Your task to perform on an android device: turn on notifications settings in the gmail app Image 0: 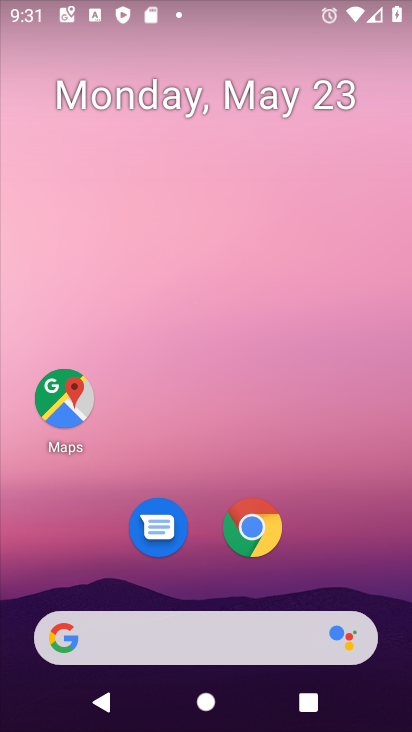
Step 0: drag from (314, 469) to (298, 72)
Your task to perform on an android device: turn on notifications settings in the gmail app Image 1: 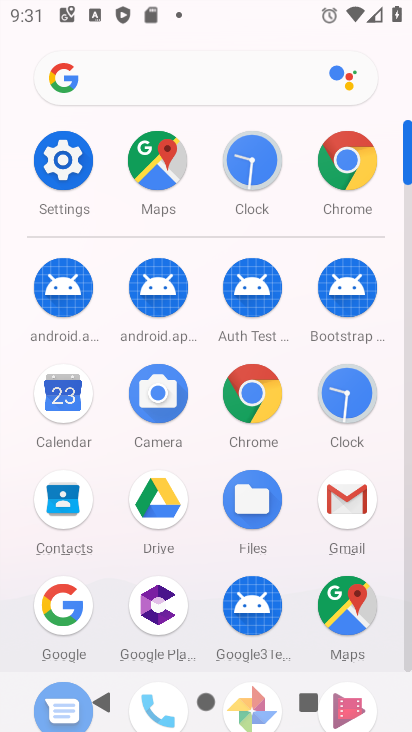
Step 1: drag from (8, 576) to (8, 172)
Your task to perform on an android device: turn on notifications settings in the gmail app Image 2: 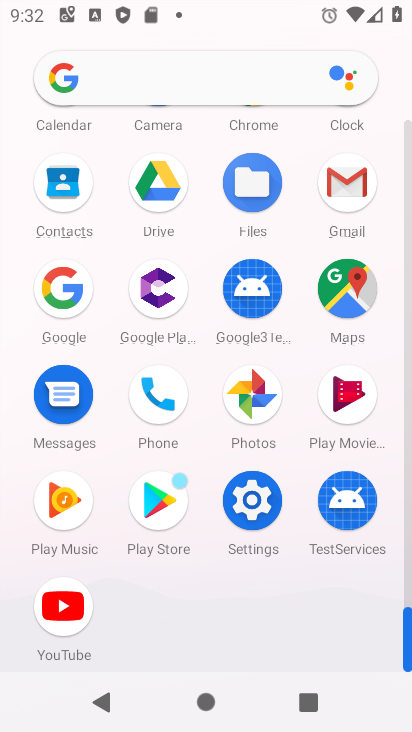
Step 2: click (342, 184)
Your task to perform on an android device: turn on notifications settings in the gmail app Image 3: 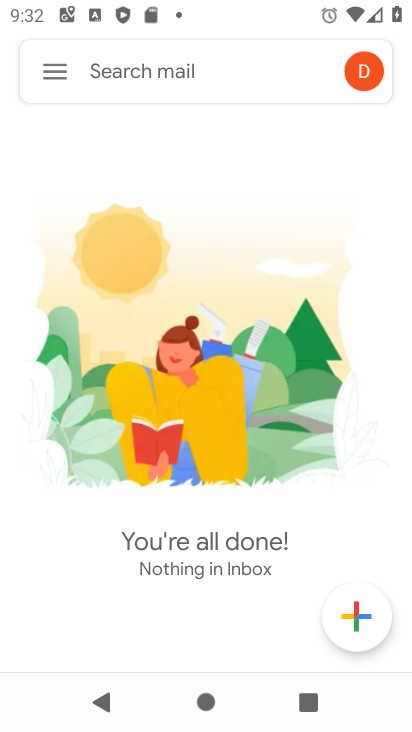
Step 3: click (52, 67)
Your task to perform on an android device: turn on notifications settings in the gmail app Image 4: 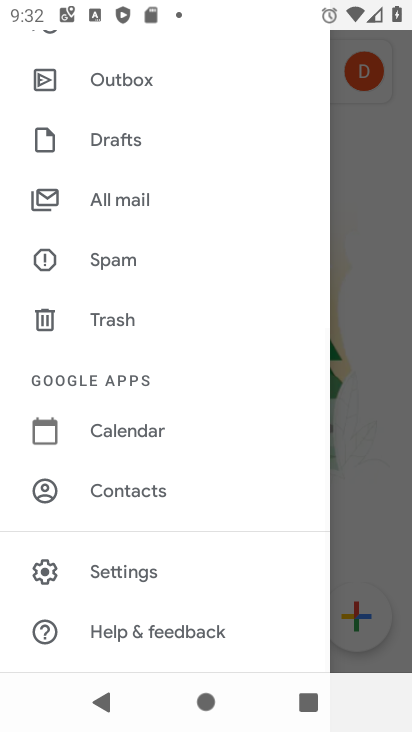
Step 4: drag from (195, 574) to (214, 138)
Your task to perform on an android device: turn on notifications settings in the gmail app Image 5: 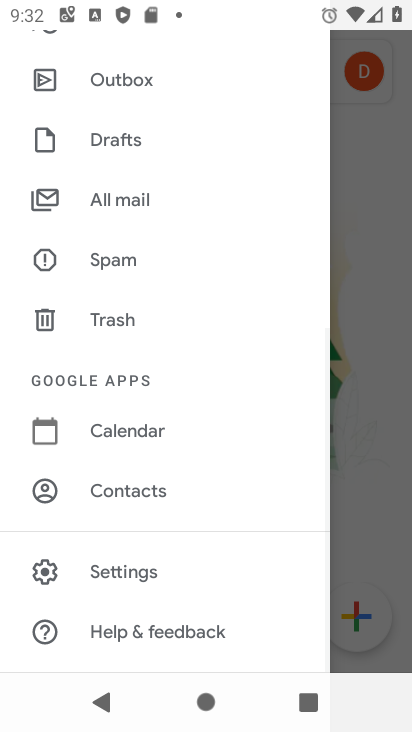
Step 5: drag from (176, 148) to (163, 595)
Your task to perform on an android device: turn on notifications settings in the gmail app Image 6: 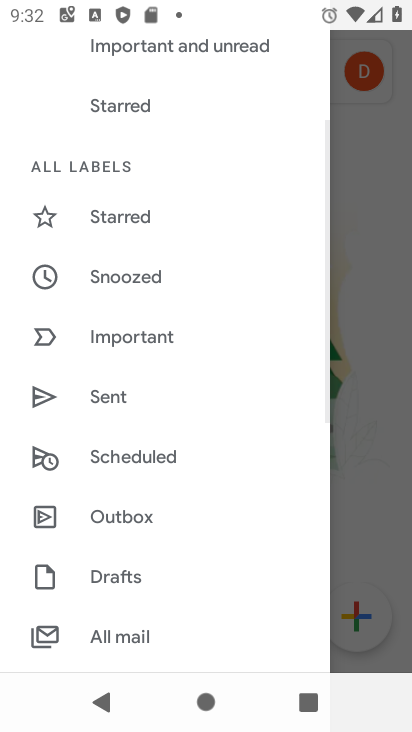
Step 6: drag from (177, 650) to (176, 73)
Your task to perform on an android device: turn on notifications settings in the gmail app Image 7: 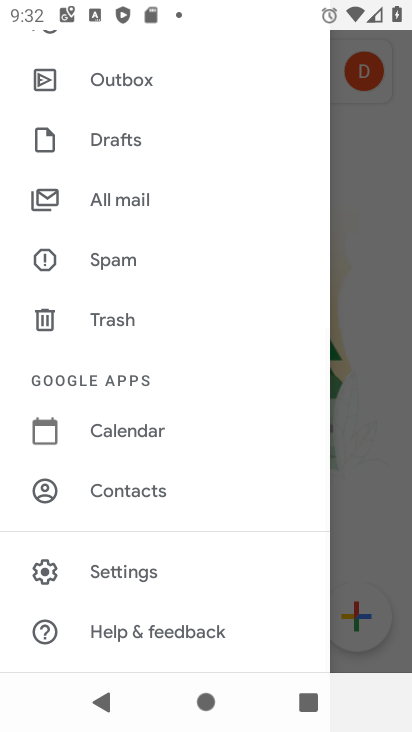
Step 7: drag from (178, 491) to (207, 110)
Your task to perform on an android device: turn on notifications settings in the gmail app Image 8: 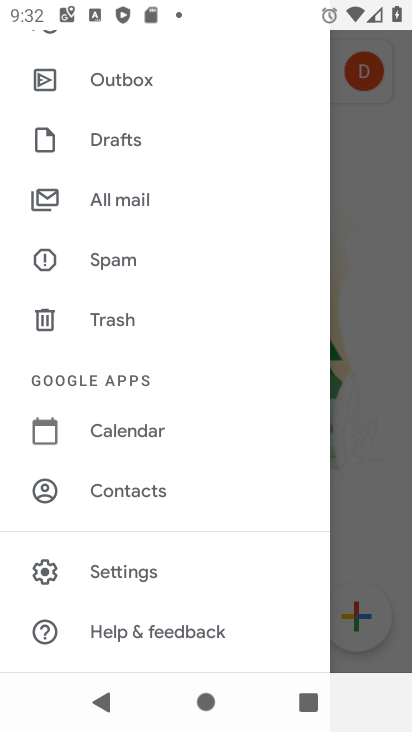
Step 8: click (145, 560)
Your task to perform on an android device: turn on notifications settings in the gmail app Image 9: 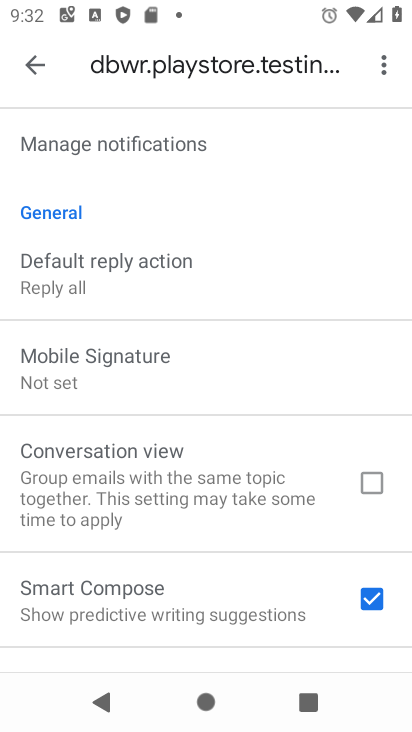
Step 9: drag from (234, 184) to (234, 614)
Your task to perform on an android device: turn on notifications settings in the gmail app Image 10: 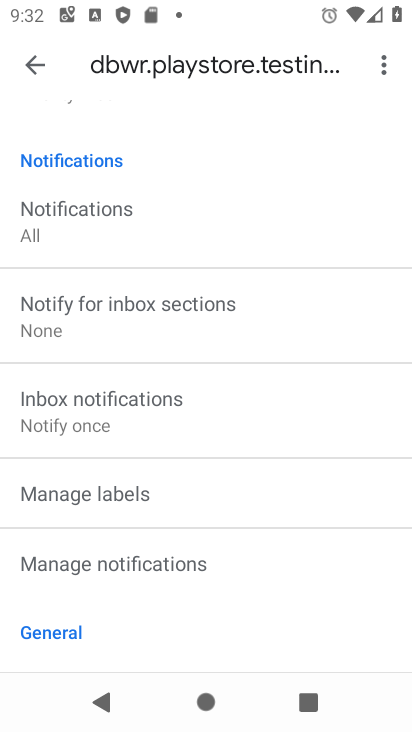
Step 10: click (167, 556)
Your task to perform on an android device: turn on notifications settings in the gmail app Image 11: 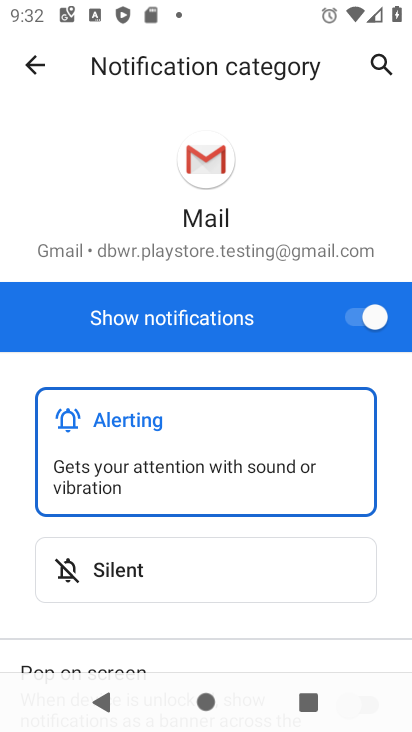
Step 11: drag from (201, 610) to (222, 200)
Your task to perform on an android device: turn on notifications settings in the gmail app Image 12: 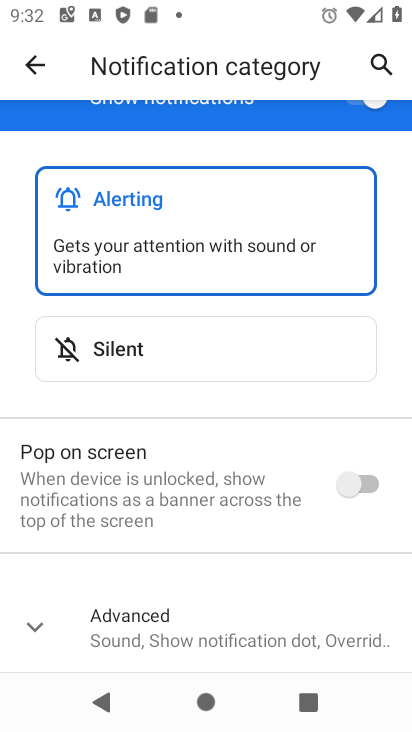
Step 12: drag from (223, 213) to (197, 586)
Your task to perform on an android device: turn on notifications settings in the gmail app Image 13: 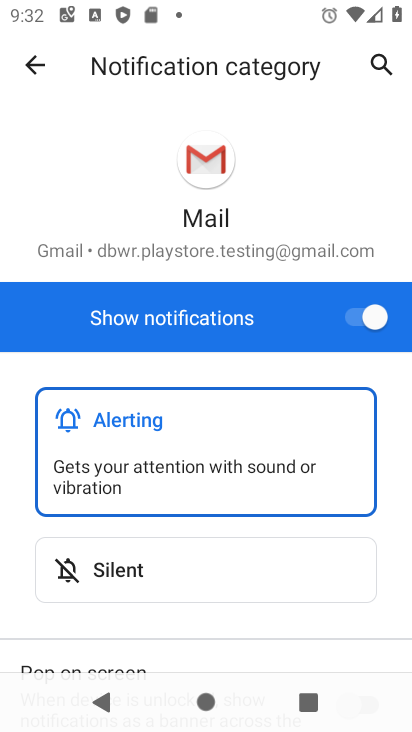
Step 13: drag from (197, 586) to (266, 119)
Your task to perform on an android device: turn on notifications settings in the gmail app Image 14: 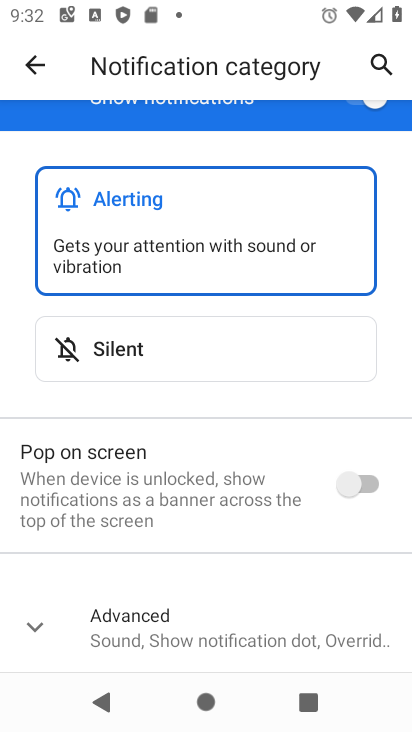
Step 14: click (33, 623)
Your task to perform on an android device: turn on notifications settings in the gmail app Image 15: 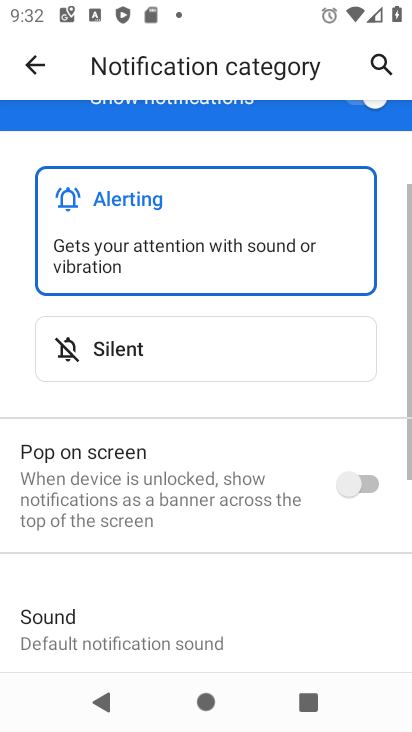
Step 15: task complete